Your task to perform on an android device: Open Android settings Image 0: 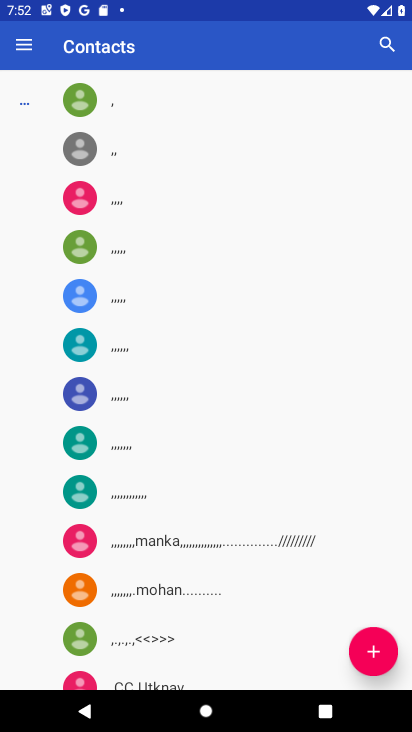
Step 0: press home button
Your task to perform on an android device: Open Android settings Image 1: 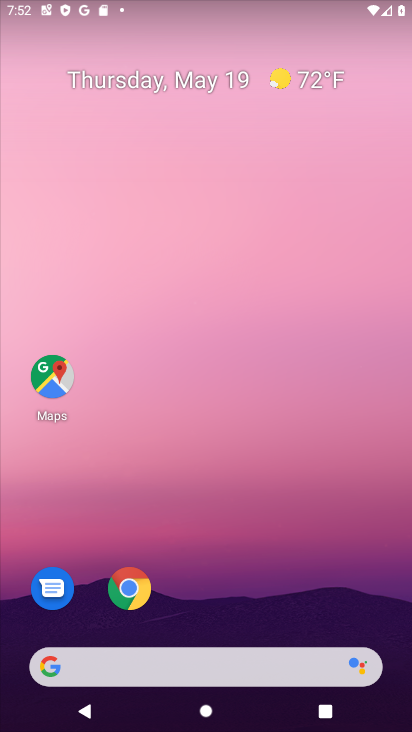
Step 1: drag from (312, 583) to (314, 6)
Your task to perform on an android device: Open Android settings Image 2: 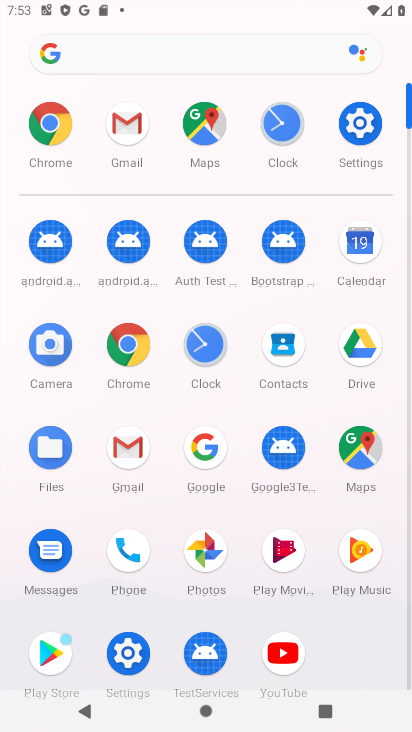
Step 2: click (125, 654)
Your task to perform on an android device: Open Android settings Image 3: 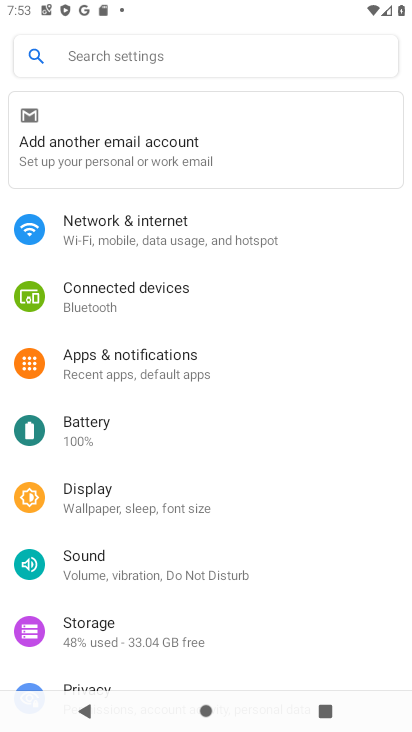
Step 3: task complete